Your task to perform on an android device: change text size in settings app Image 0: 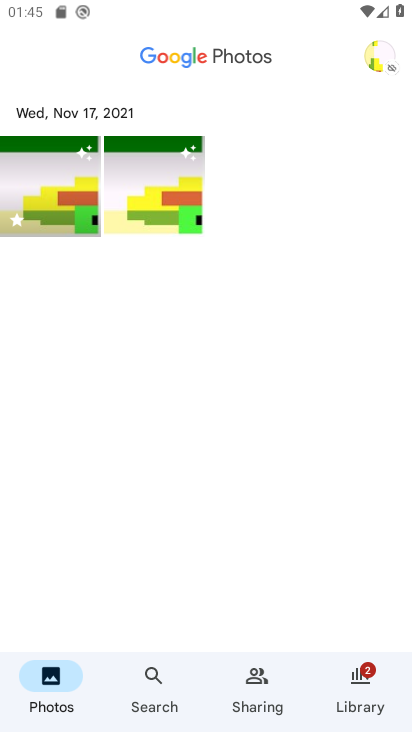
Step 0: press home button
Your task to perform on an android device: change text size in settings app Image 1: 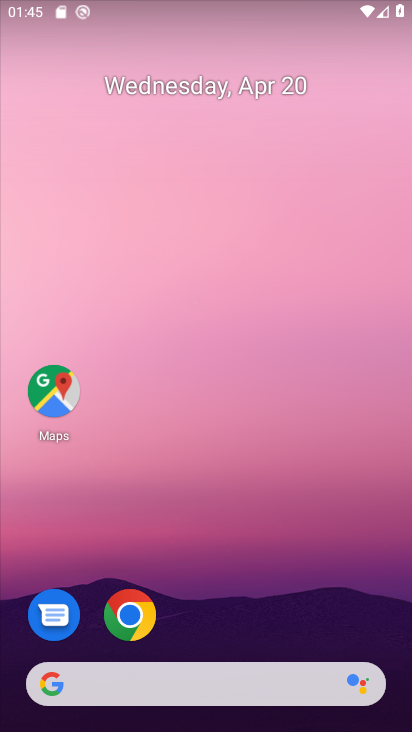
Step 1: drag from (310, 235) to (281, 82)
Your task to perform on an android device: change text size in settings app Image 2: 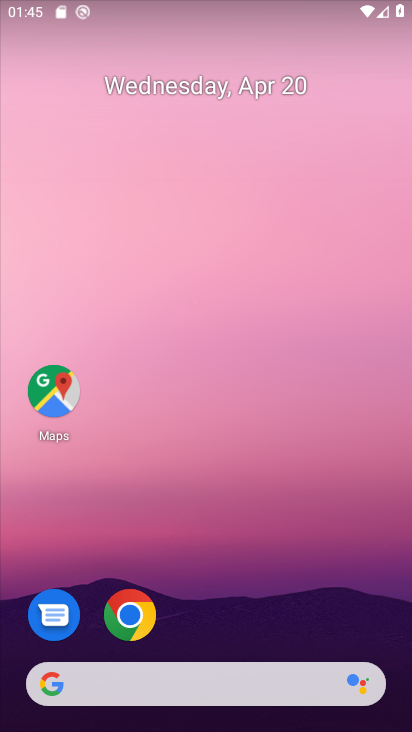
Step 2: drag from (340, 452) to (318, 149)
Your task to perform on an android device: change text size in settings app Image 3: 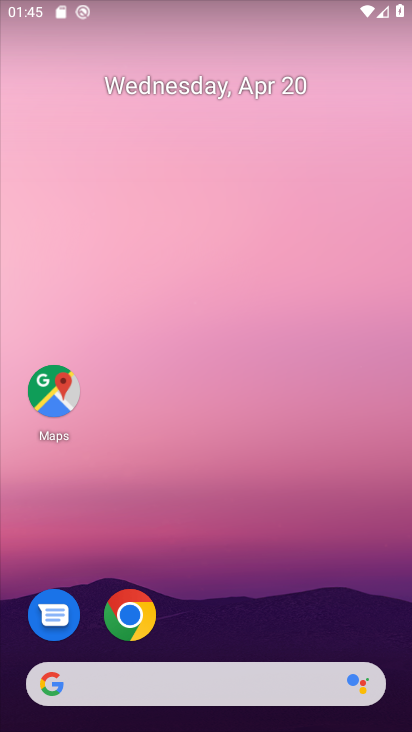
Step 3: click (356, 142)
Your task to perform on an android device: change text size in settings app Image 4: 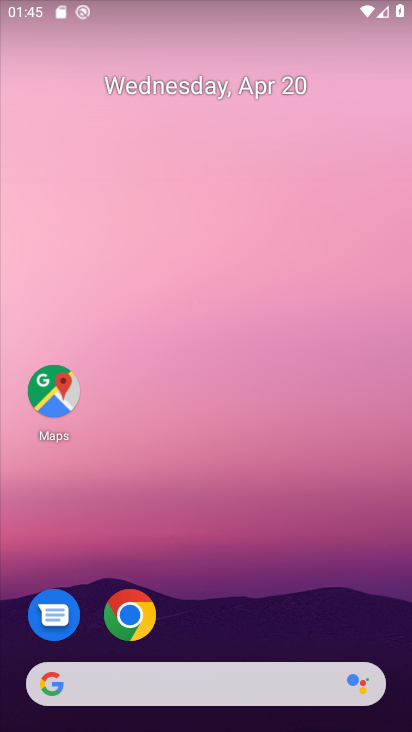
Step 4: drag from (388, 640) to (378, 116)
Your task to perform on an android device: change text size in settings app Image 5: 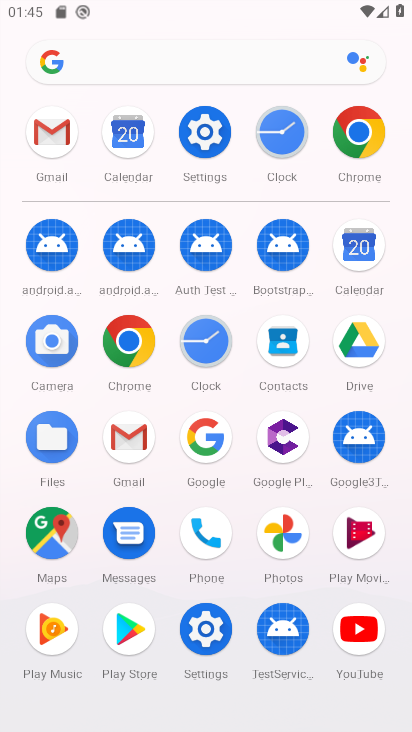
Step 5: click (185, 137)
Your task to perform on an android device: change text size in settings app Image 6: 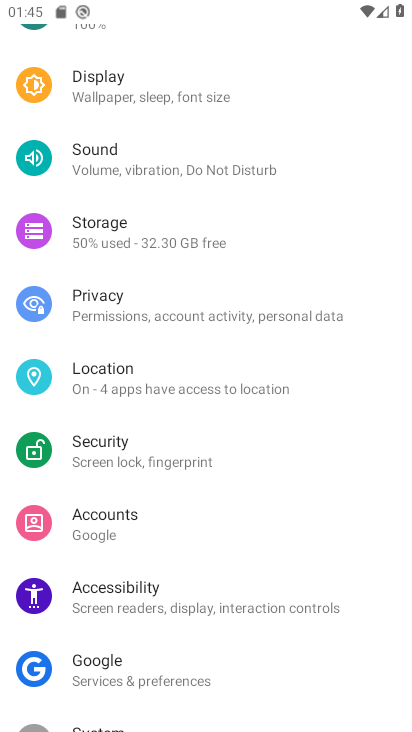
Step 6: click (143, 88)
Your task to perform on an android device: change text size in settings app Image 7: 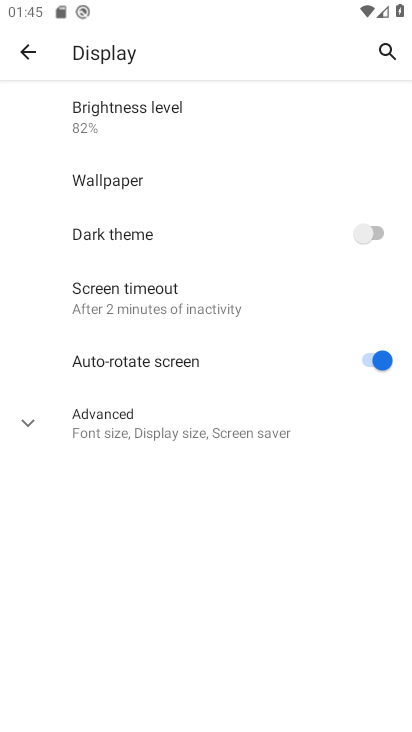
Step 7: click (97, 428)
Your task to perform on an android device: change text size in settings app Image 8: 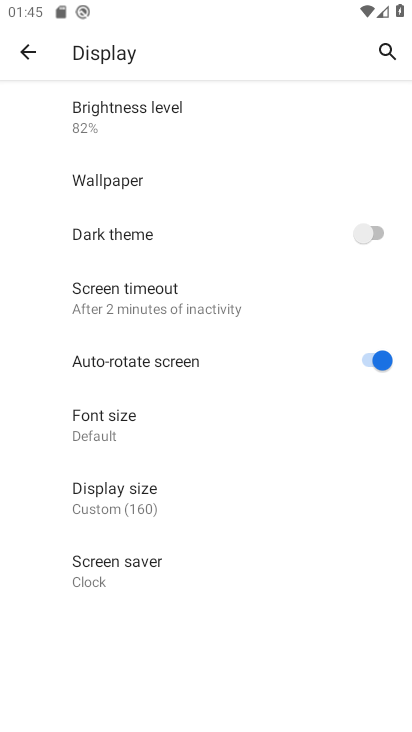
Step 8: click (107, 424)
Your task to perform on an android device: change text size in settings app Image 9: 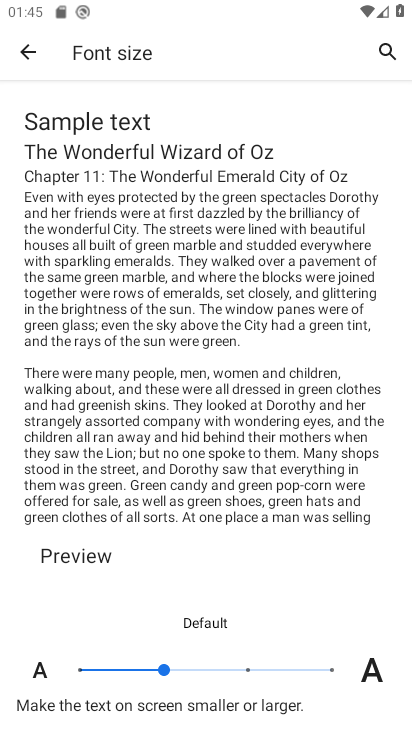
Step 9: click (209, 668)
Your task to perform on an android device: change text size in settings app Image 10: 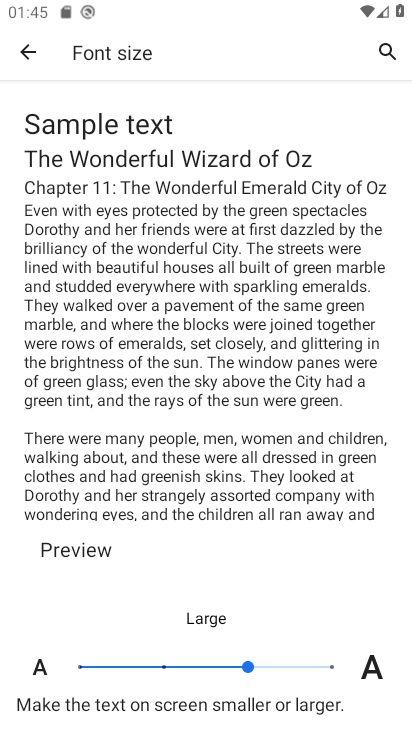
Step 10: task complete